Your task to perform on an android device: Search for seafood restaurants on Google Maps Image 0: 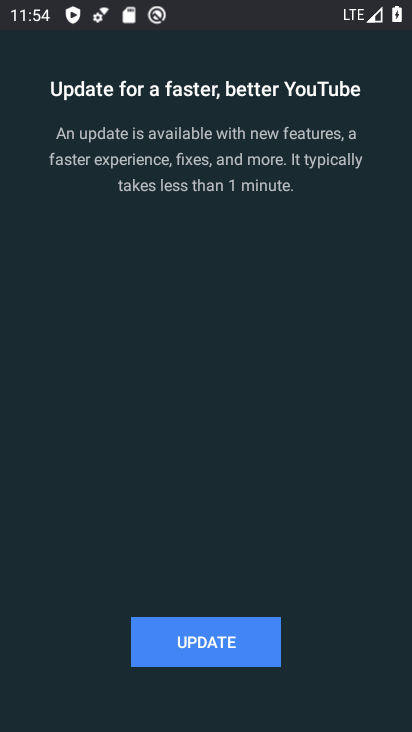
Step 0: press home button
Your task to perform on an android device: Search for seafood restaurants on Google Maps Image 1: 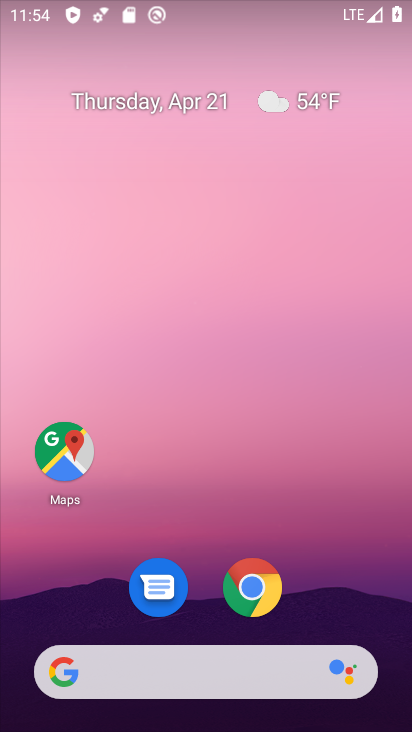
Step 1: click (45, 454)
Your task to perform on an android device: Search for seafood restaurants on Google Maps Image 2: 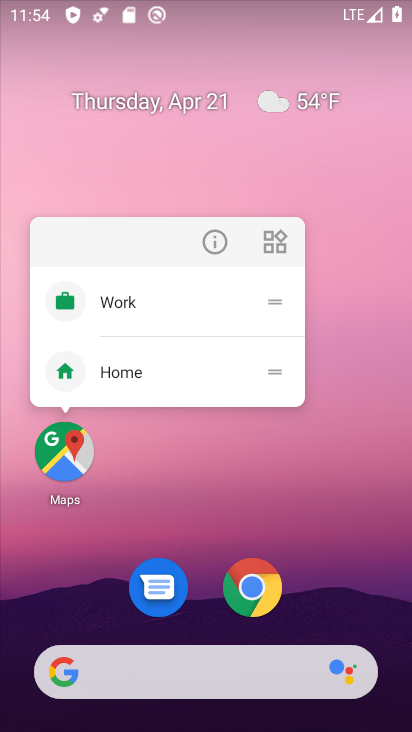
Step 2: click (67, 446)
Your task to perform on an android device: Search for seafood restaurants on Google Maps Image 3: 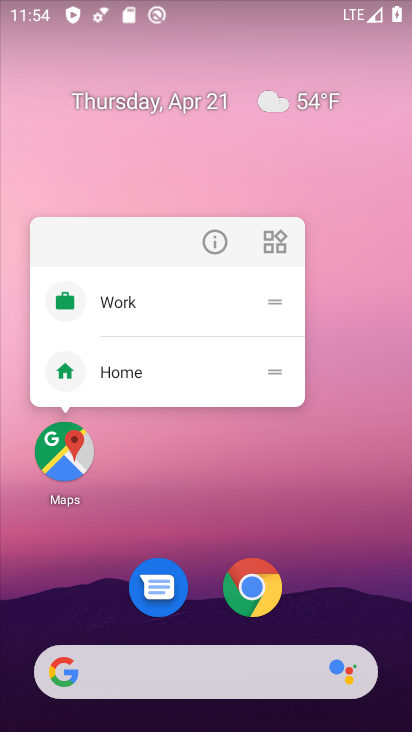
Step 3: click (68, 461)
Your task to perform on an android device: Search for seafood restaurants on Google Maps Image 4: 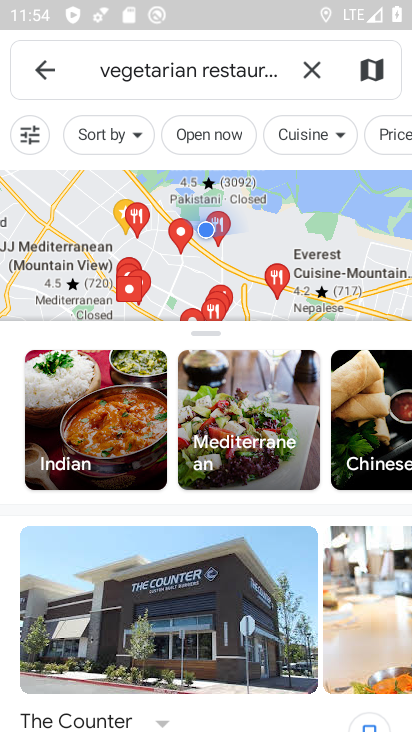
Step 4: click (311, 74)
Your task to perform on an android device: Search for seafood restaurants on Google Maps Image 5: 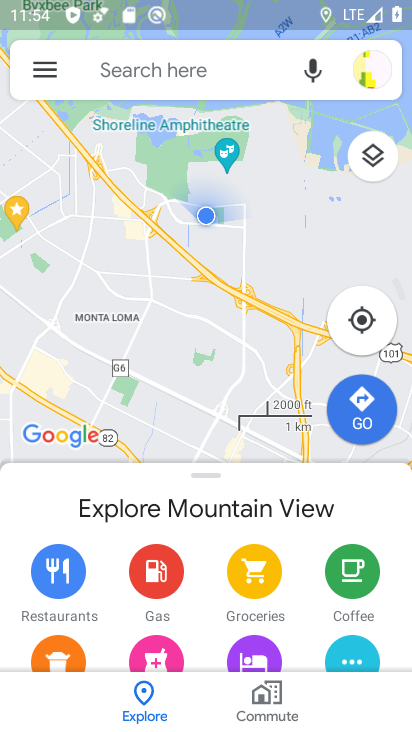
Step 5: click (156, 78)
Your task to perform on an android device: Search for seafood restaurants on Google Maps Image 6: 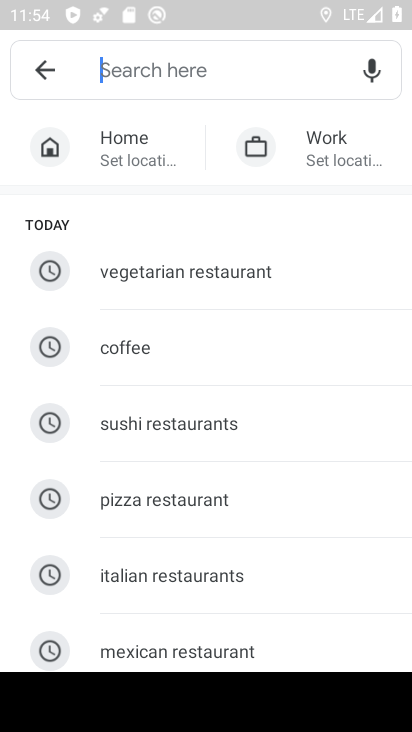
Step 6: type "seafood"
Your task to perform on an android device: Search for seafood restaurants on Google Maps Image 7: 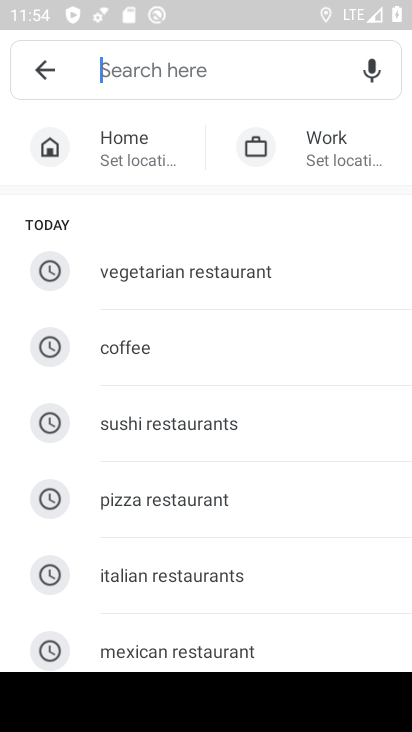
Step 7: drag from (249, 243) to (277, 157)
Your task to perform on an android device: Search for seafood restaurants on Google Maps Image 8: 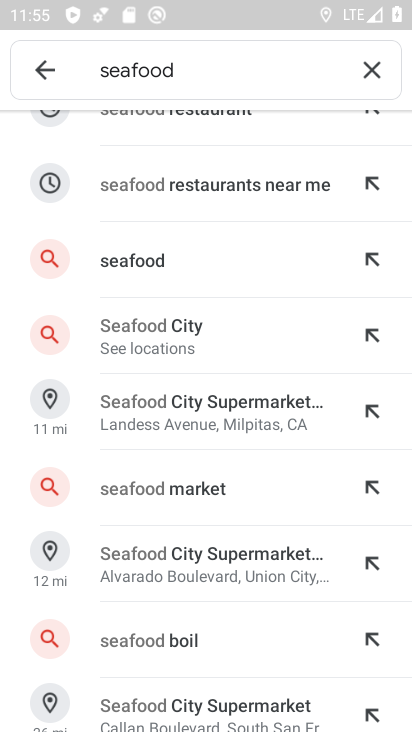
Step 8: drag from (263, 214) to (220, 671)
Your task to perform on an android device: Search for seafood restaurants on Google Maps Image 9: 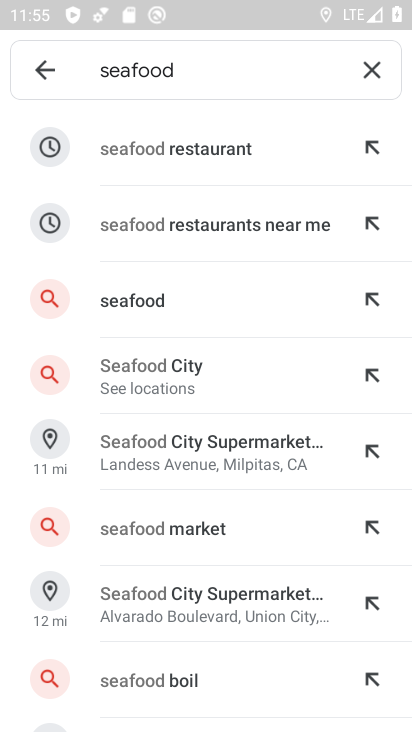
Step 9: click (184, 136)
Your task to perform on an android device: Search for seafood restaurants on Google Maps Image 10: 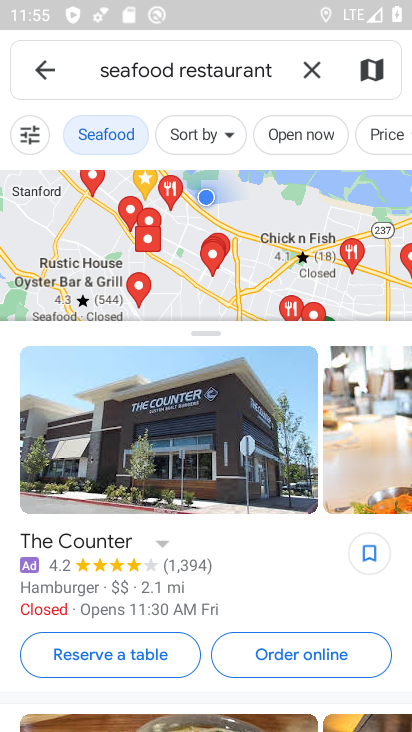
Step 10: task complete